Your task to perform on an android device: snooze an email in the gmail app Image 0: 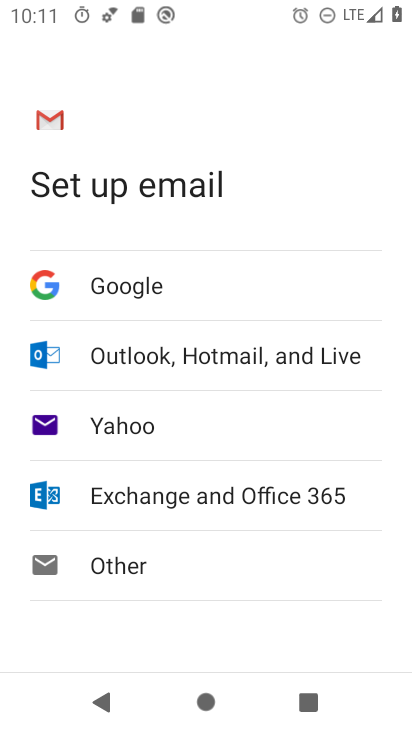
Step 0: press home button
Your task to perform on an android device: snooze an email in the gmail app Image 1: 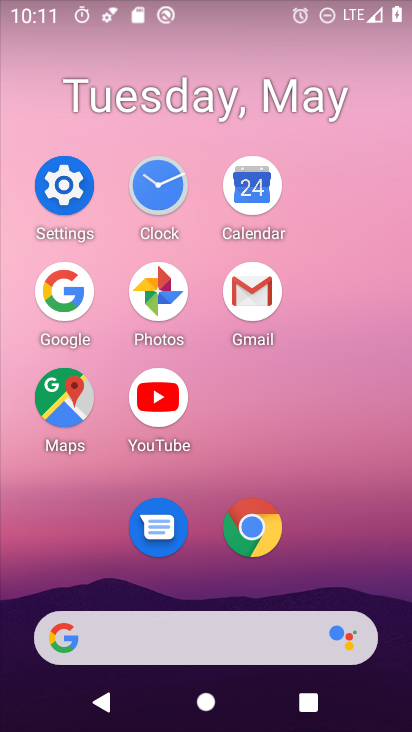
Step 1: click (246, 295)
Your task to perform on an android device: snooze an email in the gmail app Image 2: 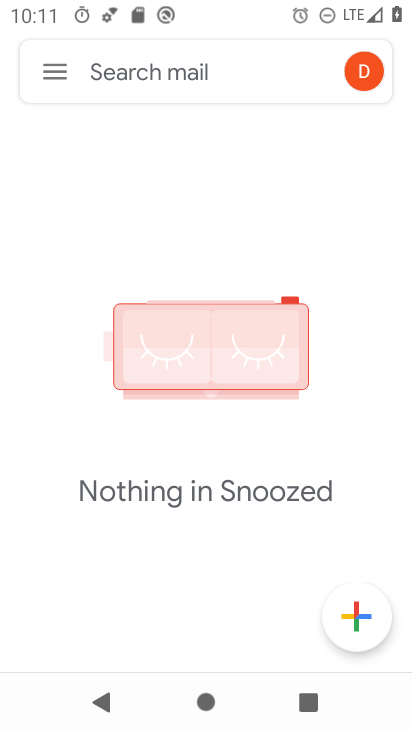
Step 2: click (61, 71)
Your task to perform on an android device: snooze an email in the gmail app Image 3: 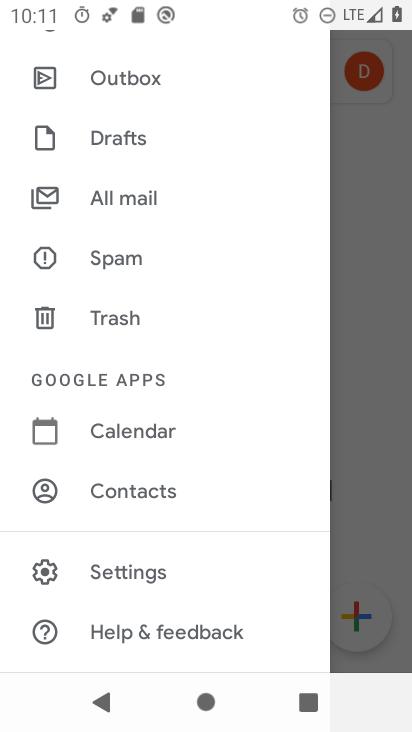
Step 3: click (104, 197)
Your task to perform on an android device: snooze an email in the gmail app Image 4: 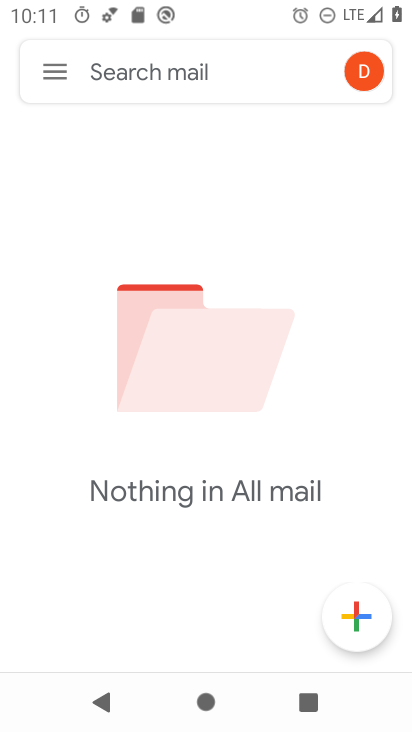
Step 4: task complete